Your task to perform on an android device: open wifi settings Image 0: 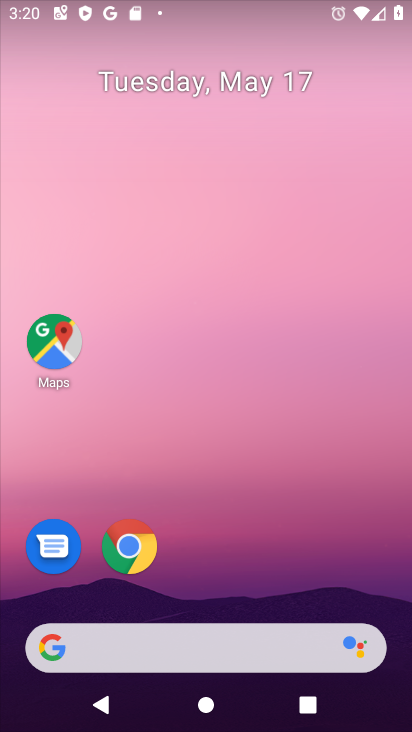
Step 0: click (409, 353)
Your task to perform on an android device: open wifi settings Image 1: 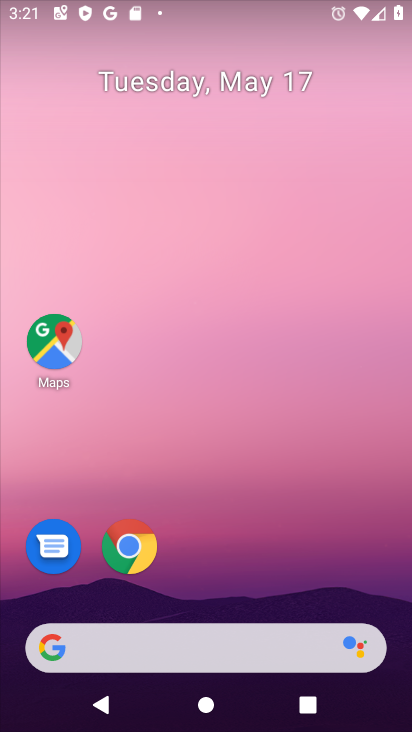
Step 1: click (388, 385)
Your task to perform on an android device: open wifi settings Image 2: 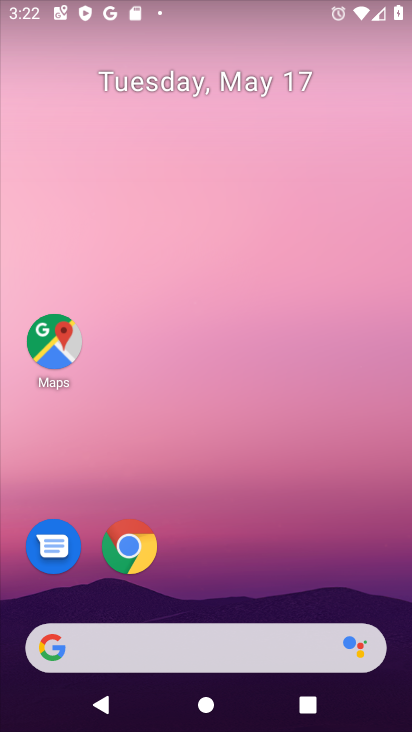
Step 2: click (373, 278)
Your task to perform on an android device: open wifi settings Image 3: 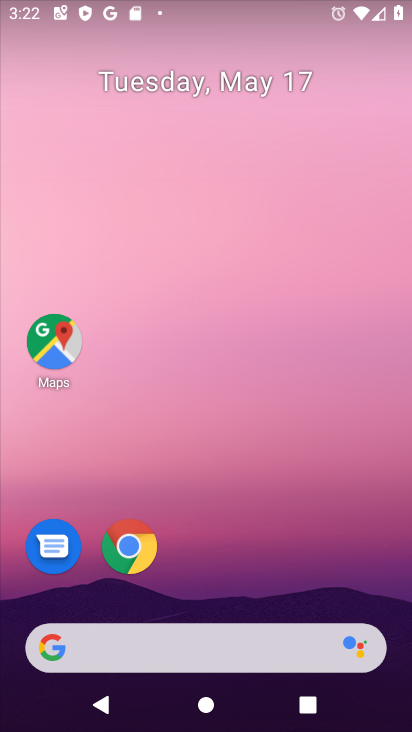
Step 3: drag from (401, 643) to (385, 285)
Your task to perform on an android device: open wifi settings Image 4: 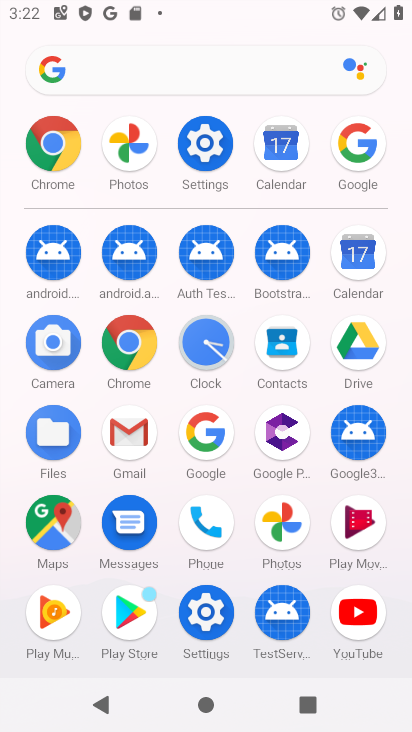
Step 4: click (203, 130)
Your task to perform on an android device: open wifi settings Image 5: 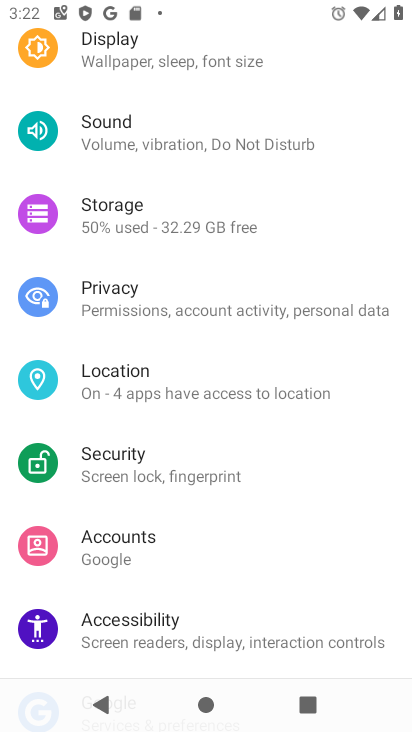
Step 5: drag from (336, 86) to (326, 401)
Your task to perform on an android device: open wifi settings Image 6: 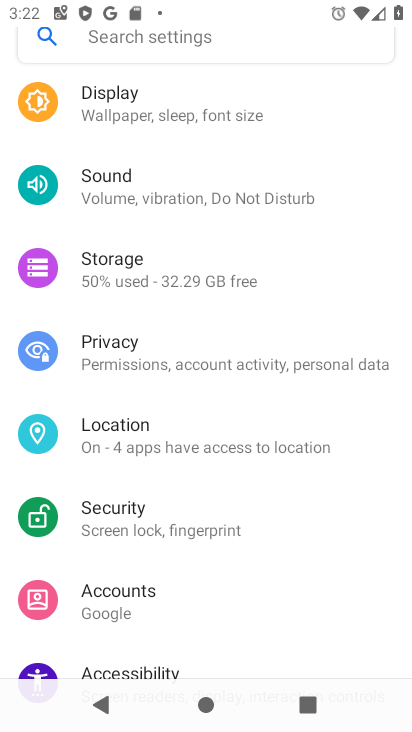
Step 6: drag from (343, 341) to (339, 437)
Your task to perform on an android device: open wifi settings Image 7: 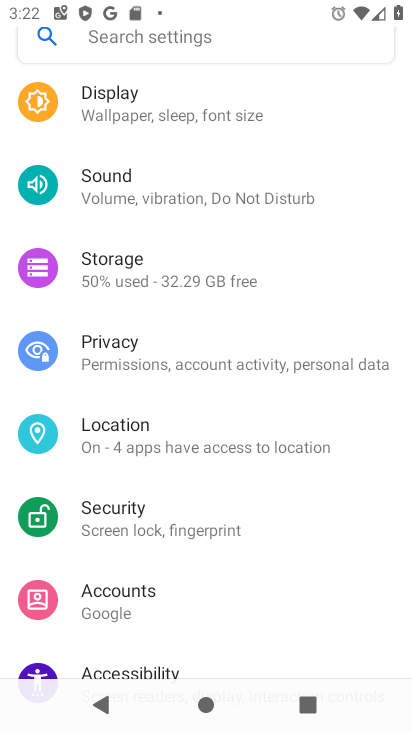
Step 7: drag from (324, 123) to (344, 474)
Your task to perform on an android device: open wifi settings Image 8: 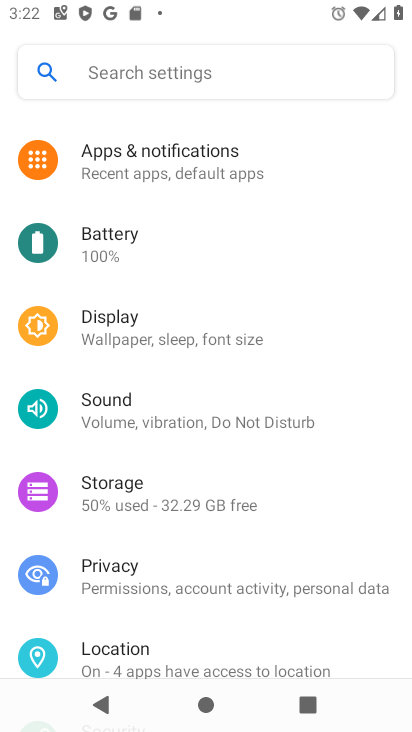
Step 8: drag from (322, 246) to (385, 569)
Your task to perform on an android device: open wifi settings Image 9: 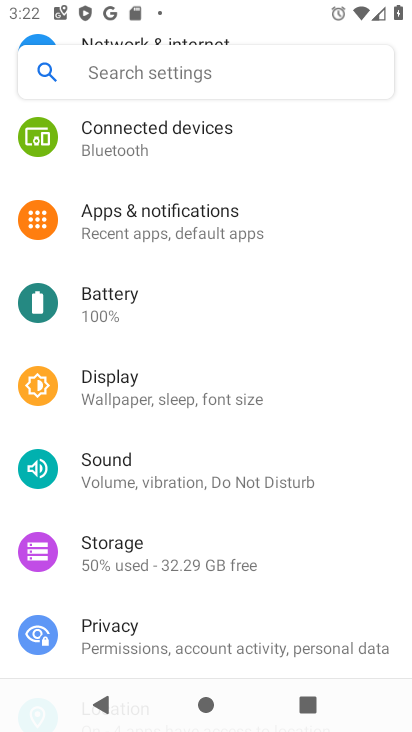
Step 9: drag from (340, 180) to (390, 447)
Your task to perform on an android device: open wifi settings Image 10: 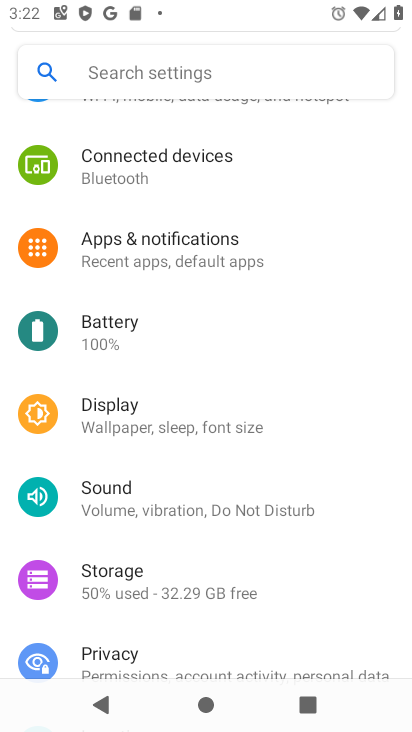
Step 10: drag from (372, 282) to (390, 570)
Your task to perform on an android device: open wifi settings Image 11: 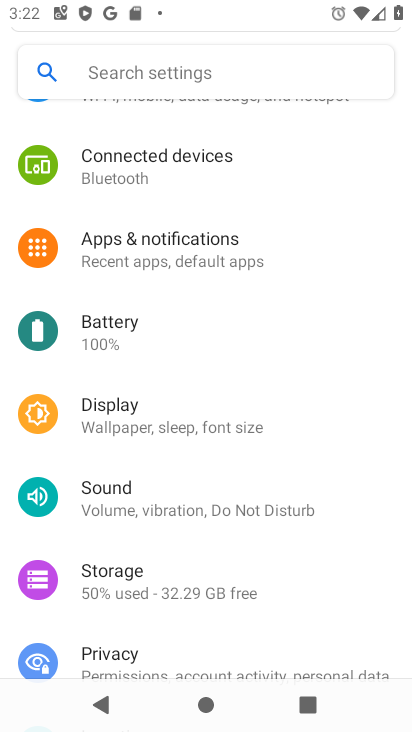
Step 11: drag from (340, 192) to (355, 406)
Your task to perform on an android device: open wifi settings Image 12: 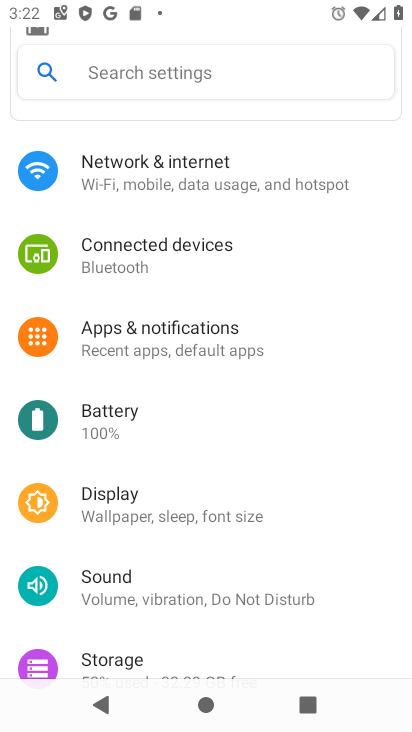
Step 12: click (160, 162)
Your task to perform on an android device: open wifi settings Image 13: 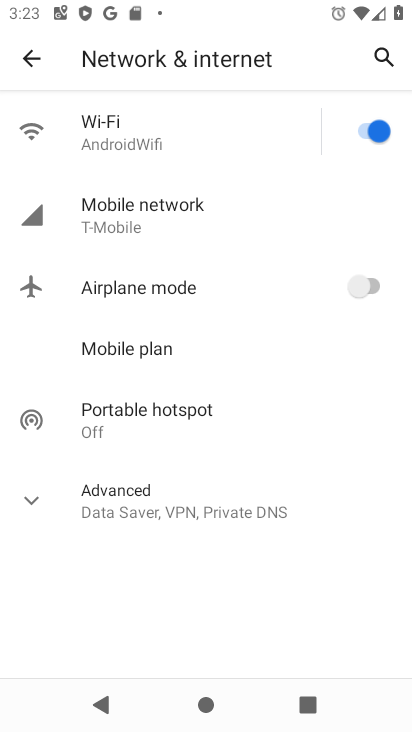
Step 13: click (210, 137)
Your task to perform on an android device: open wifi settings Image 14: 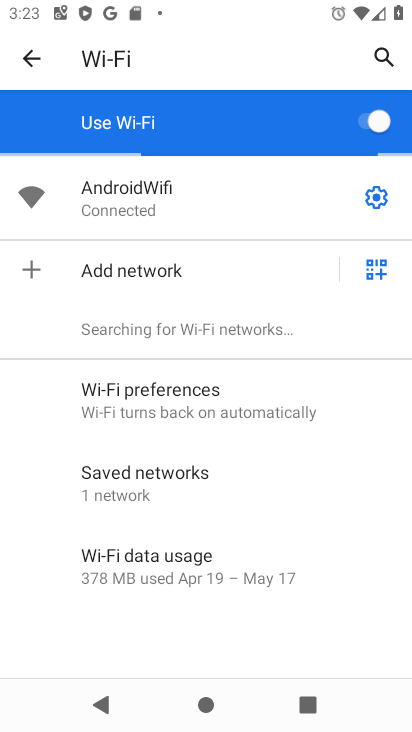
Step 14: task complete